Your task to perform on an android device: Go to Android settings Image 0: 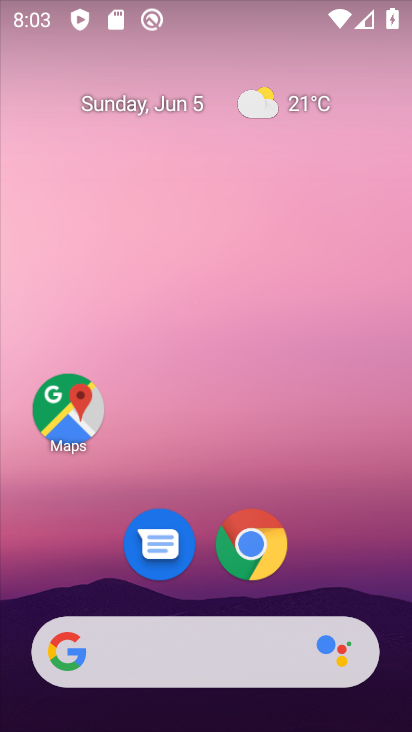
Step 0: drag from (395, 611) to (383, 5)
Your task to perform on an android device: Go to Android settings Image 1: 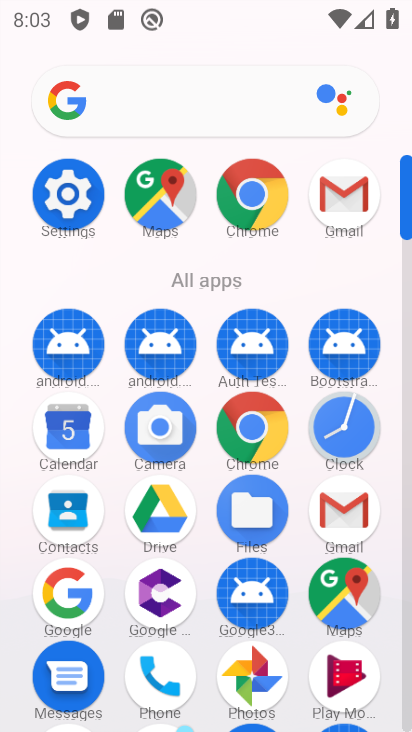
Step 1: click (53, 194)
Your task to perform on an android device: Go to Android settings Image 2: 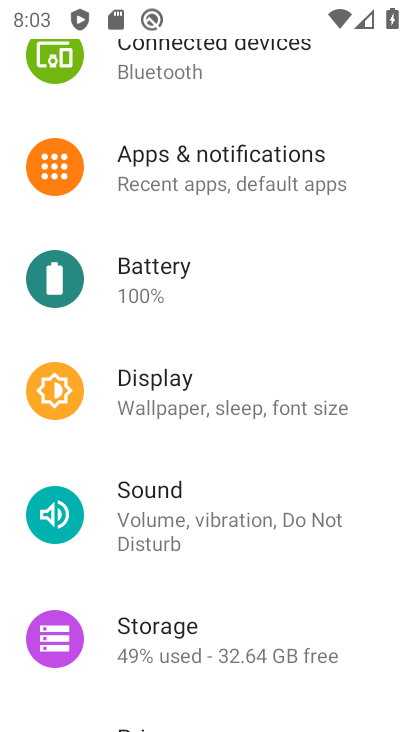
Step 2: task complete